Your task to perform on an android device: Open eBay Image 0: 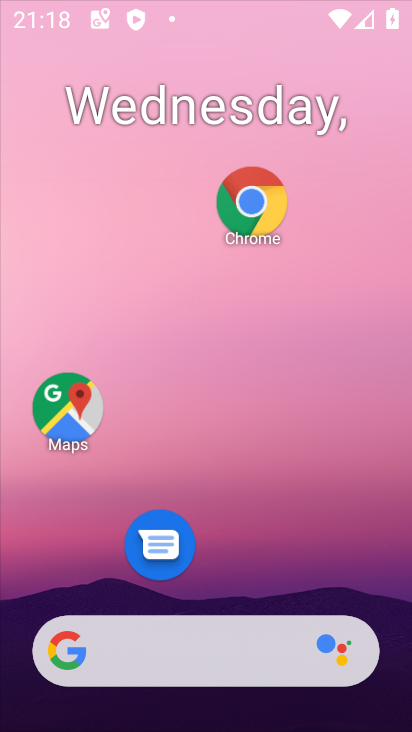
Step 0: drag from (238, 593) to (186, 252)
Your task to perform on an android device: Open eBay Image 1: 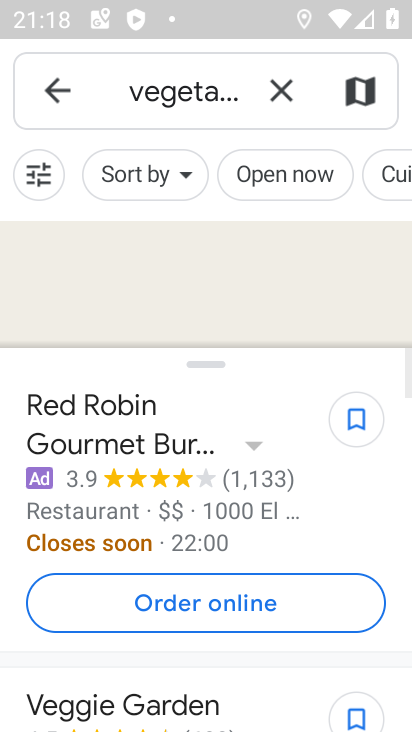
Step 1: press home button
Your task to perform on an android device: Open eBay Image 2: 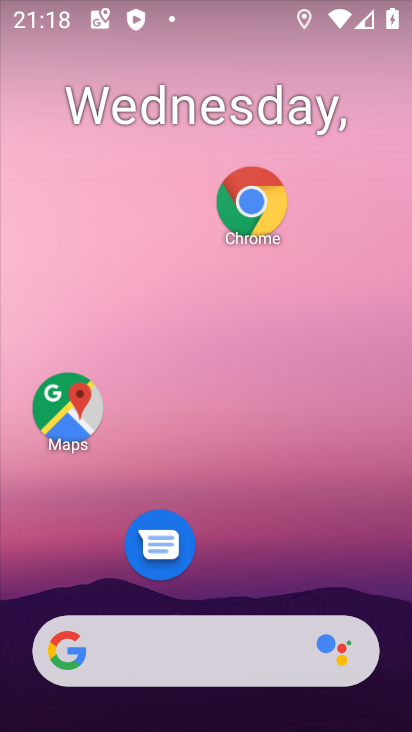
Step 2: click (213, 654)
Your task to perform on an android device: Open eBay Image 3: 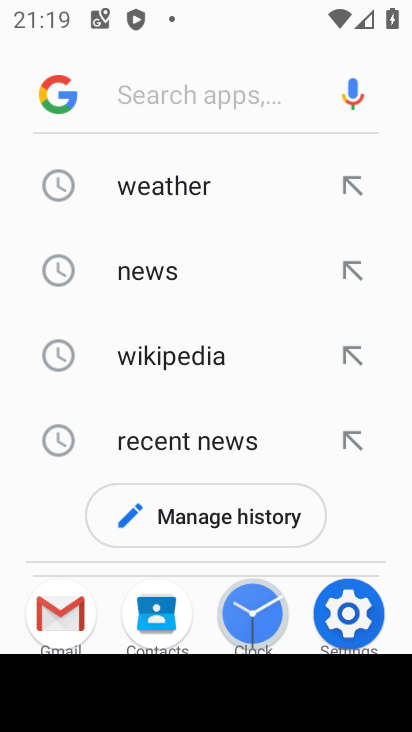
Step 3: type "ebay"
Your task to perform on an android device: Open eBay Image 4: 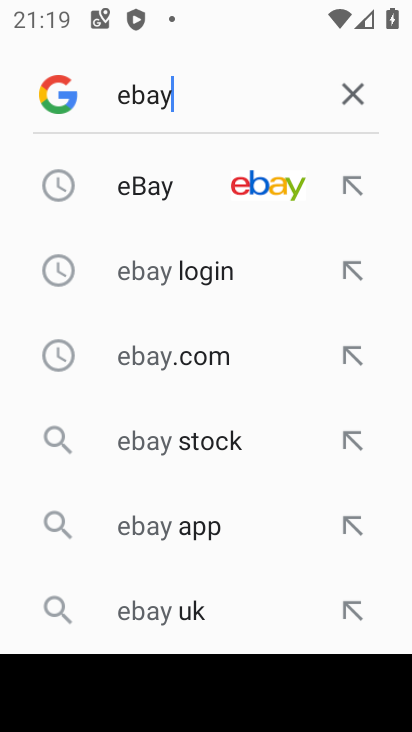
Step 4: click (268, 181)
Your task to perform on an android device: Open eBay Image 5: 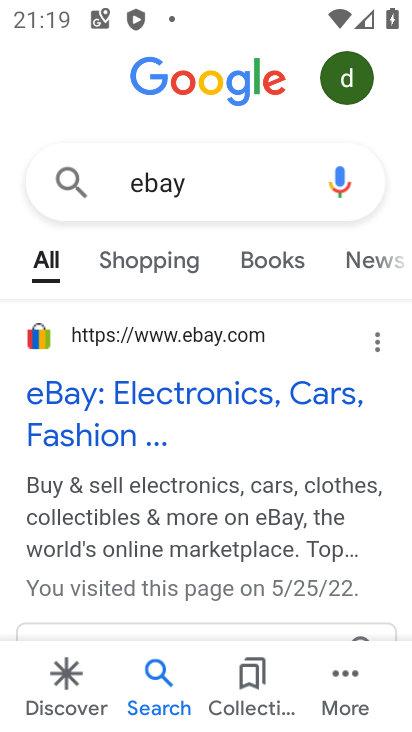
Step 5: click (180, 393)
Your task to perform on an android device: Open eBay Image 6: 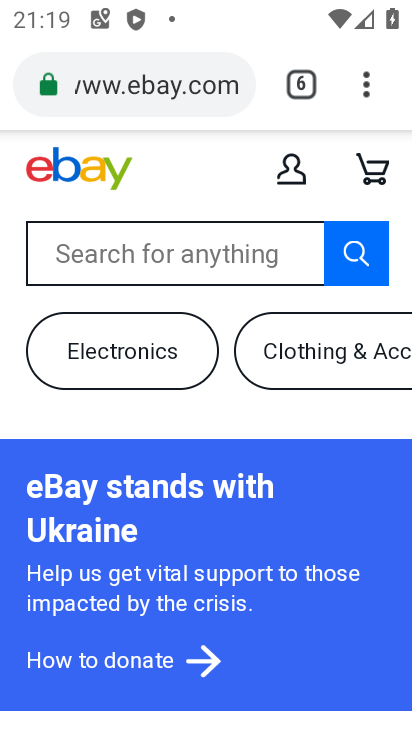
Step 6: task complete